Your task to perform on an android device: turn off sleep mode Image 0: 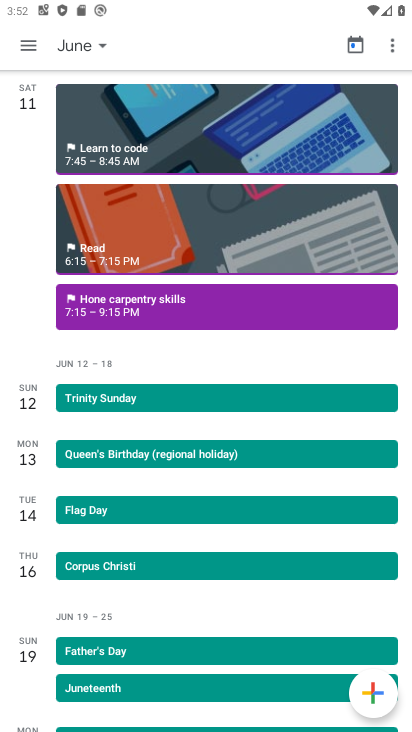
Step 0: press home button
Your task to perform on an android device: turn off sleep mode Image 1: 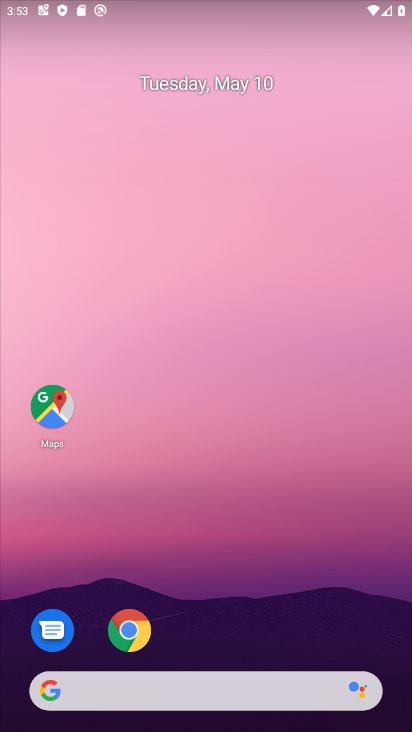
Step 1: drag from (225, 632) to (188, 23)
Your task to perform on an android device: turn off sleep mode Image 2: 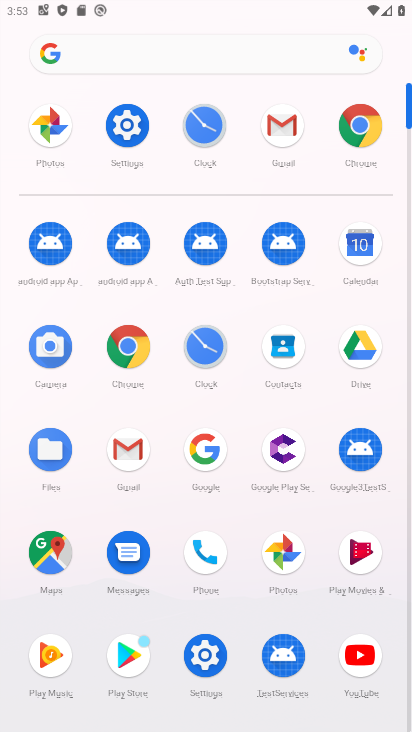
Step 2: click (212, 650)
Your task to perform on an android device: turn off sleep mode Image 3: 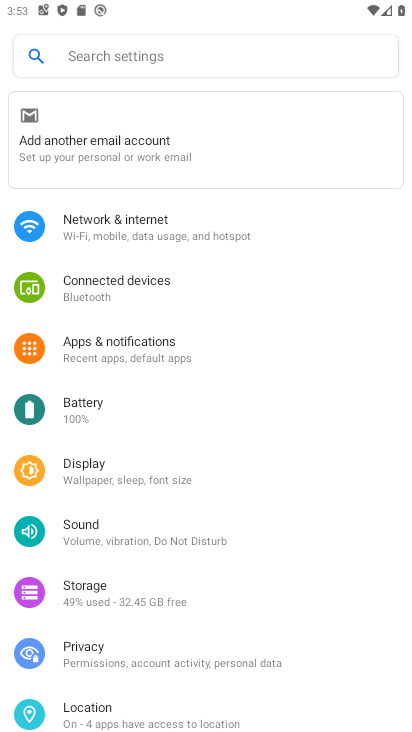
Step 3: task complete